Your task to perform on an android device: Open the web browser Image 0: 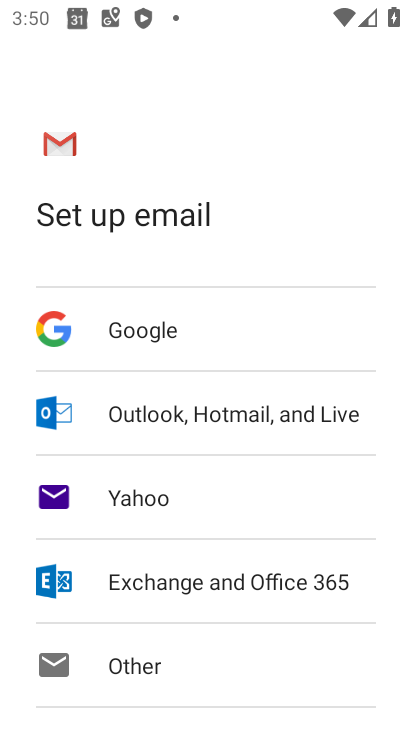
Step 0: press back button
Your task to perform on an android device: Open the web browser Image 1: 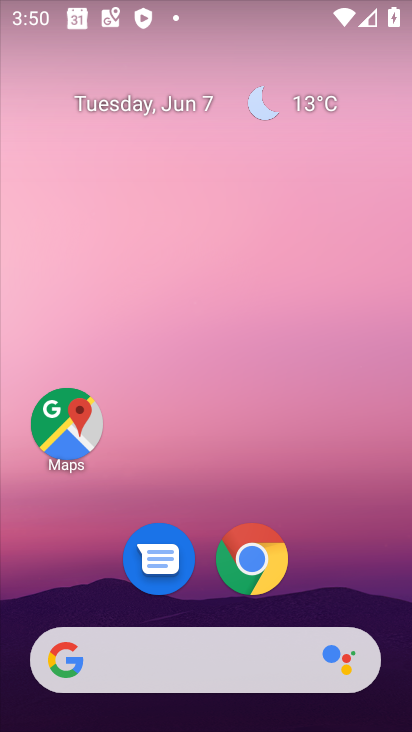
Step 1: click (252, 560)
Your task to perform on an android device: Open the web browser Image 2: 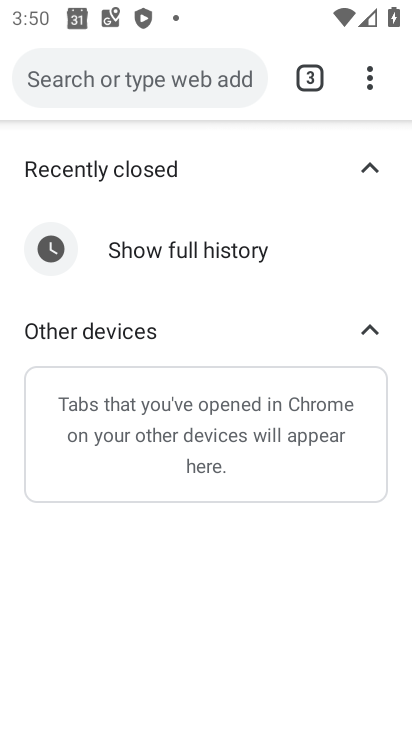
Step 2: task complete